Your task to perform on an android device: choose inbox layout in the gmail app Image 0: 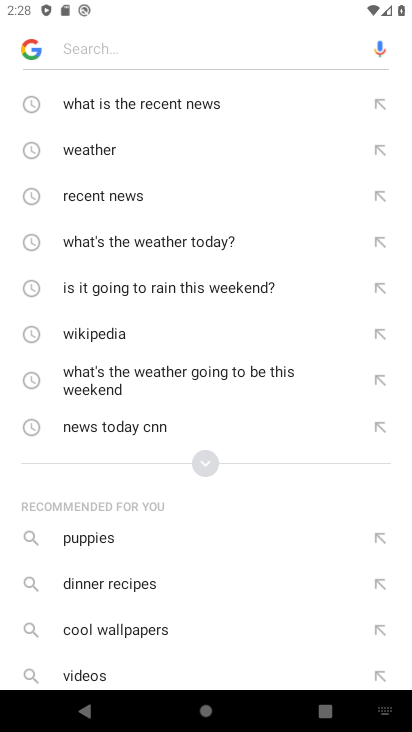
Step 0: press home button
Your task to perform on an android device: choose inbox layout in the gmail app Image 1: 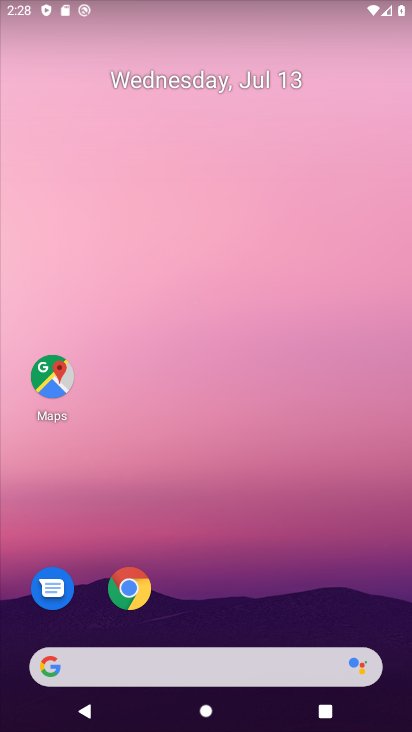
Step 1: drag from (254, 582) to (370, 0)
Your task to perform on an android device: choose inbox layout in the gmail app Image 2: 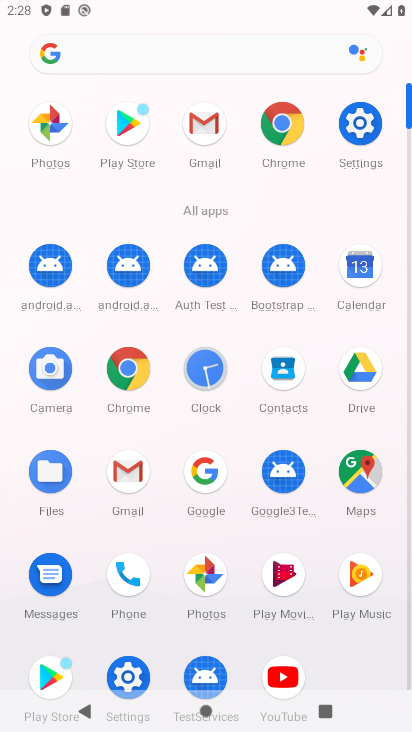
Step 2: click (201, 119)
Your task to perform on an android device: choose inbox layout in the gmail app Image 3: 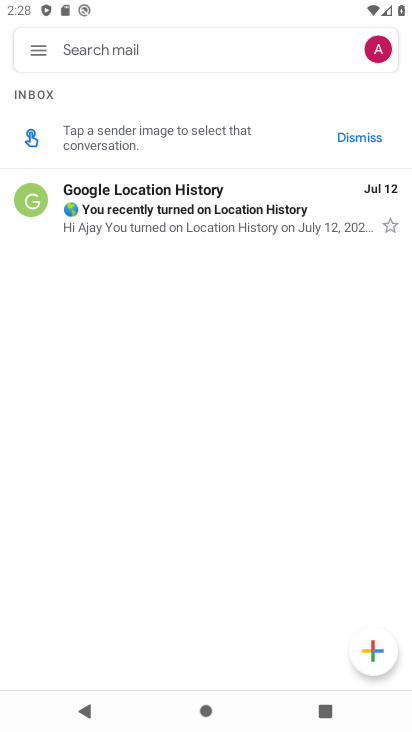
Step 3: click (38, 55)
Your task to perform on an android device: choose inbox layout in the gmail app Image 4: 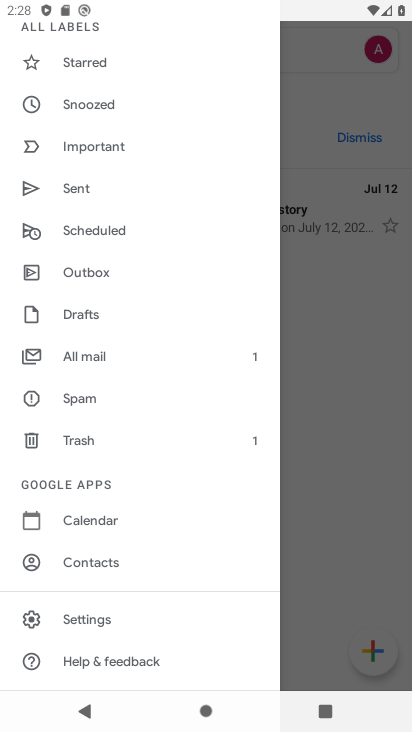
Step 4: click (130, 623)
Your task to perform on an android device: choose inbox layout in the gmail app Image 5: 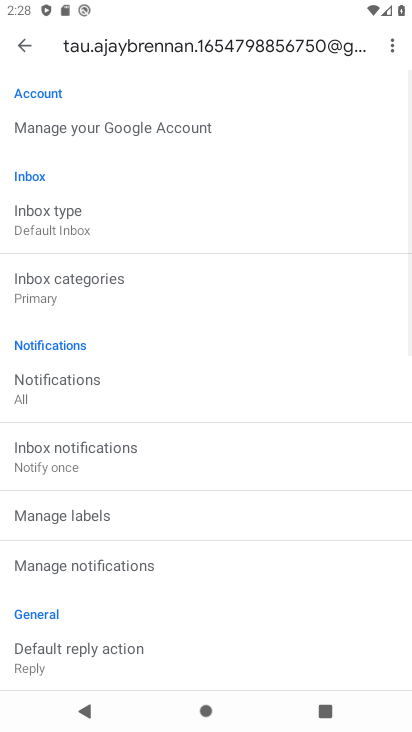
Step 5: click (102, 223)
Your task to perform on an android device: choose inbox layout in the gmail app Image 6: 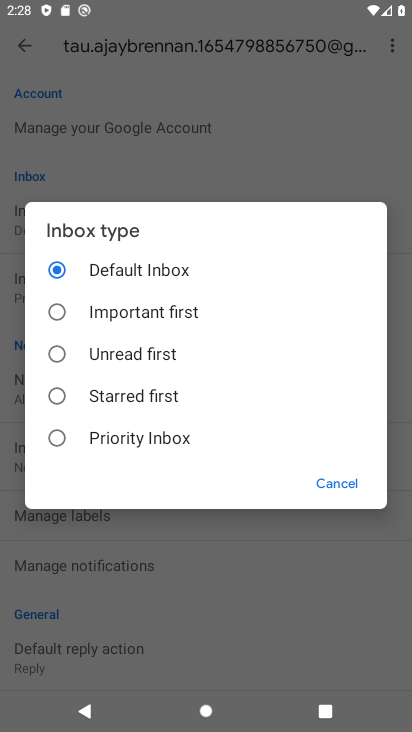
Step 6: click (127, 304)
Your task to perform on an android device: choose inbox layout in the gmail app Image 7: 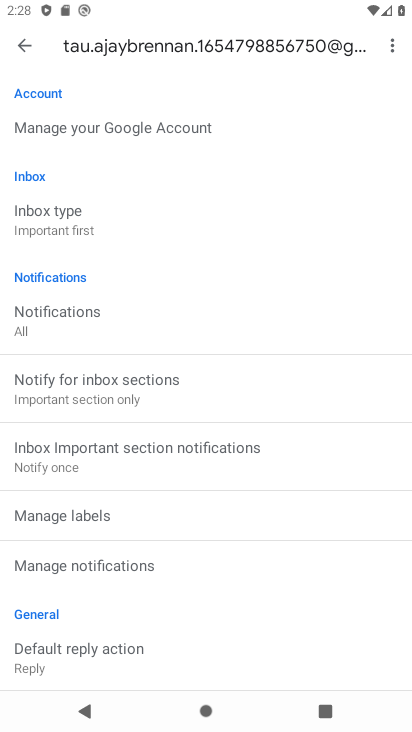
Step 7: task complete